Your task to perform on an android device: Open the web browser Image 0: 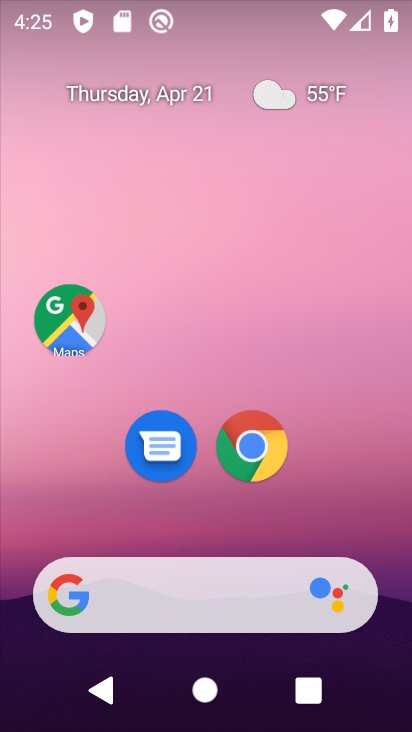
Step 0: click (162, 595)
Your task to perform on an android device: Open the web browser Image 1: 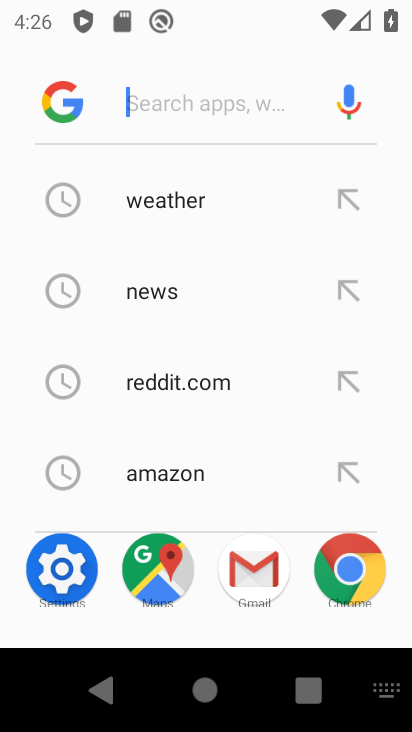
Step 1: task complete